Your task to perform on an android device: all mails in gmail Image 0: 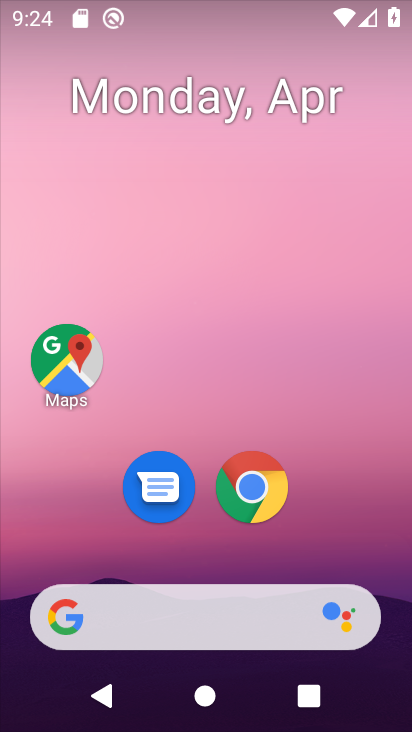
Step 0: drag from (183, 537) to (242, 11)
Your task to perform on an android device: all mails in gmail Image 1: 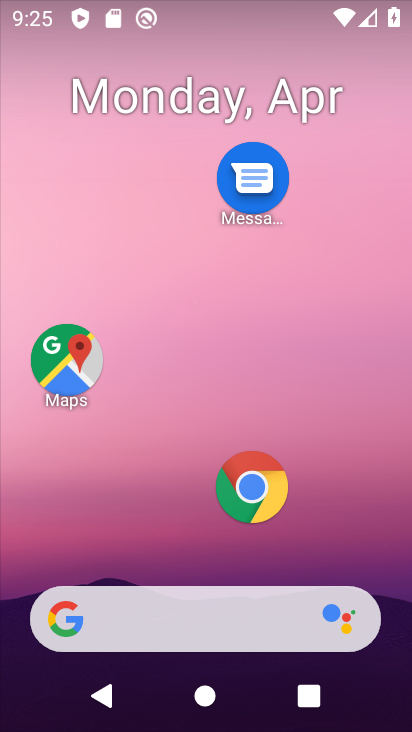
Step 1: drag from (223, 541) to (298, 11)
Your task to perform on an android device: all mails in gmail Image 2: 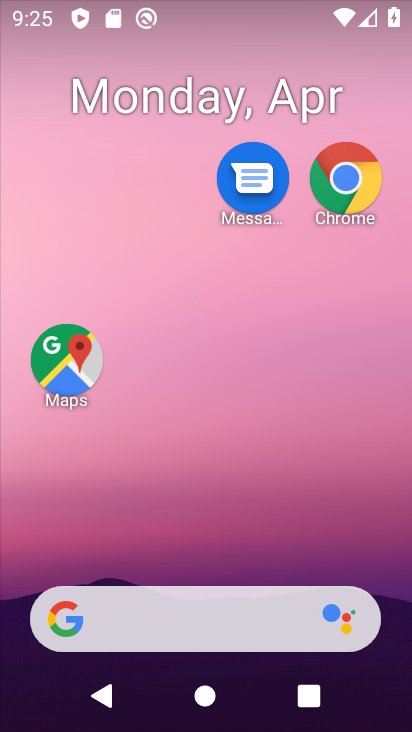
Step 2: drag from (249, 542) to (297, 115)
Your task to perform on an android device: all mails in gmail Image 3: 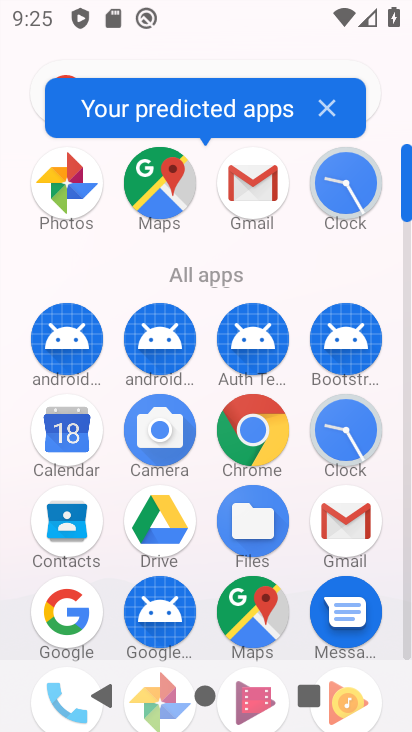
Step 3: click (346, 544)
Your task to perform on an android device: all mails in gmail Image 4: 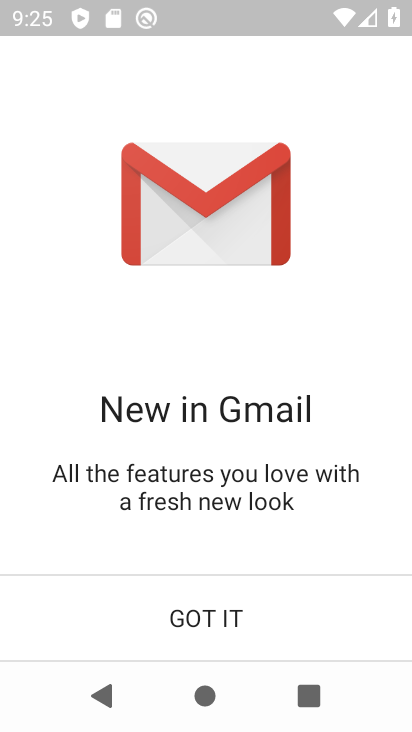
Step 4: click (284, 610)
Your task to perform on an android device: all mails in gmail Image 5: 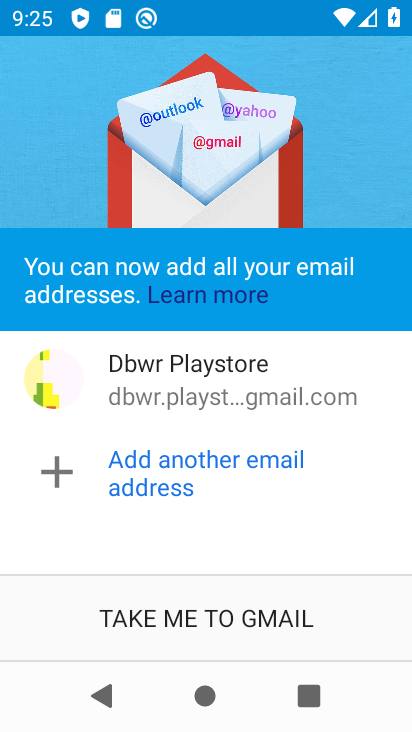
Step 5: click (284, 610)
Your task to perform on an android device: all mails in gmail Image 6: 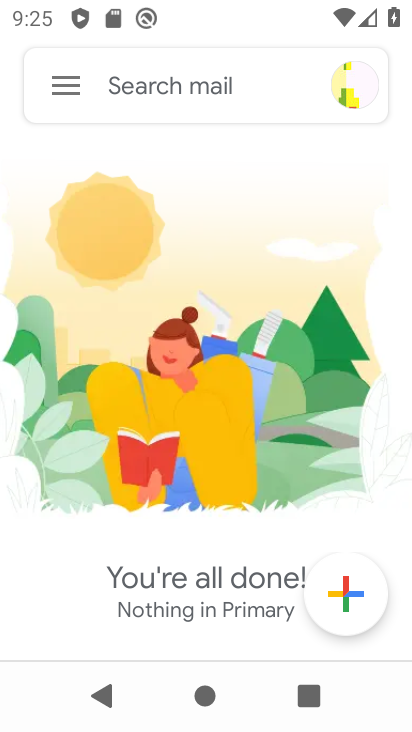
Step 6: click (53, 92)
Your task to perform on an android device: all mails in gmail Image 7: 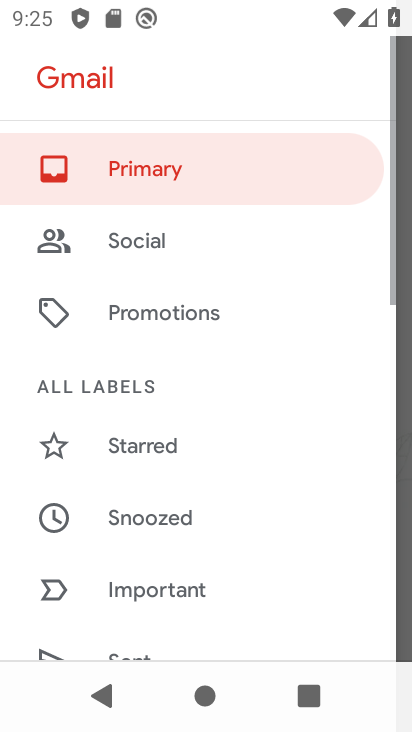
Step 7: drag from (171, 465) to (236, 84)
Your task to perform on an android device: all mails in gmail Image 8: 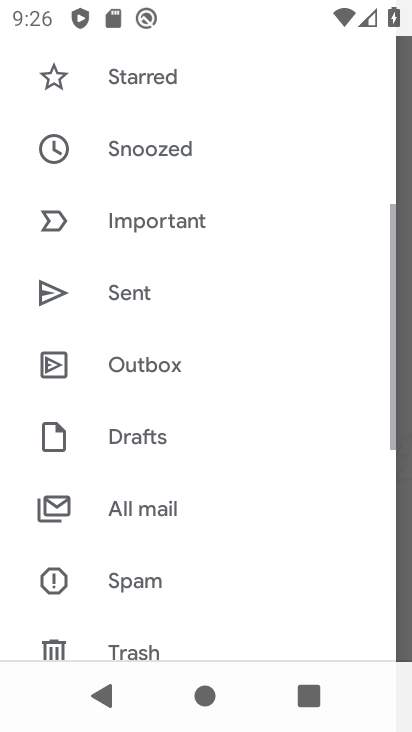
Step 8: click (217, 510)
Your task to perform on an android device: all mails in gmail Image 9: 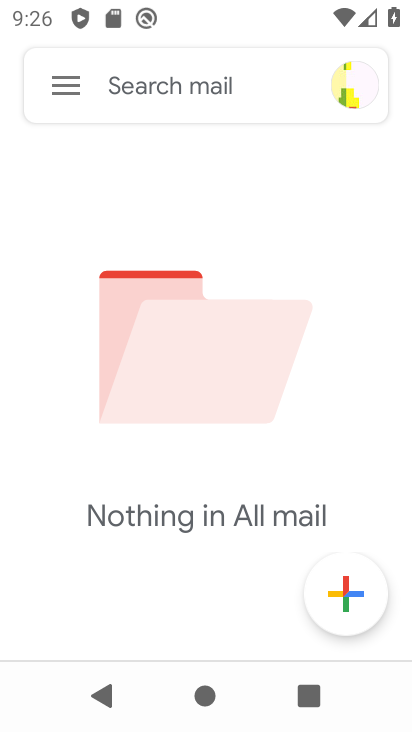
Step 9: task complete